Your task to perform on an android device: turn off wifi Image 0: 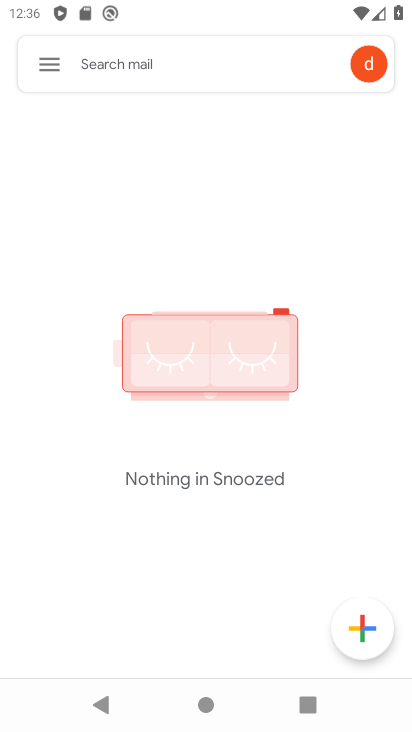
Step 0: press home button
Your task to perform on an android device: turn off wifi Image 1: 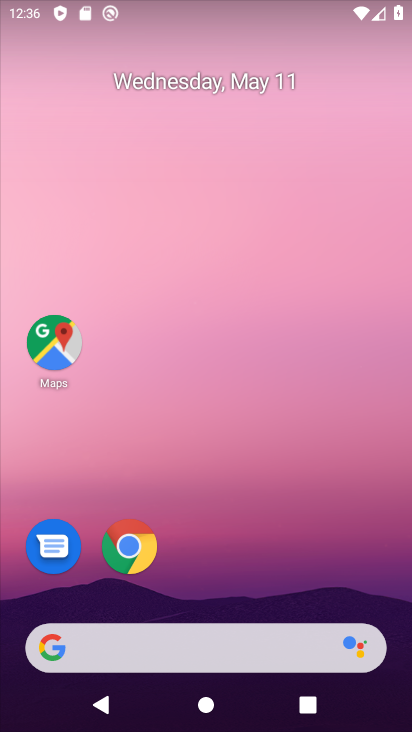
Step 1: drag from (274, 681) to (268, 330)
Your task to perform on an android device: turn off wifi Image 2: 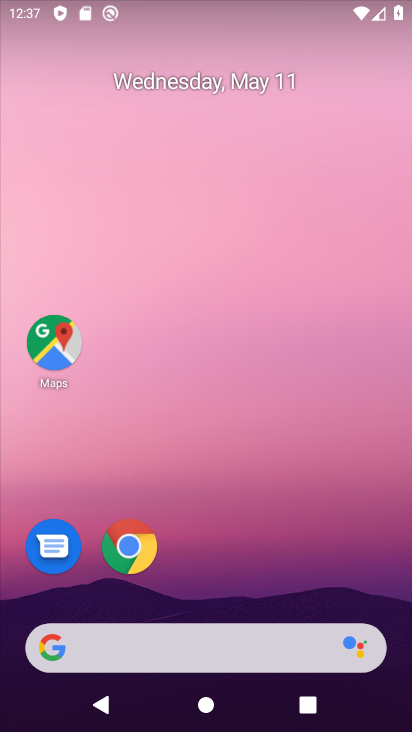
Step 2: drag from (278, 664) to (281, 247)
Your task to perform on an android device: turn off wifi Image 3: 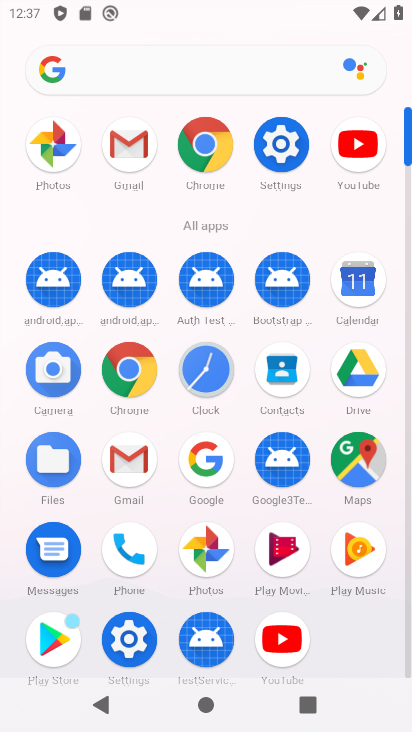
Step 3: click (266, 152)
Your task to perform on an android device: turn off wifi Image 4: 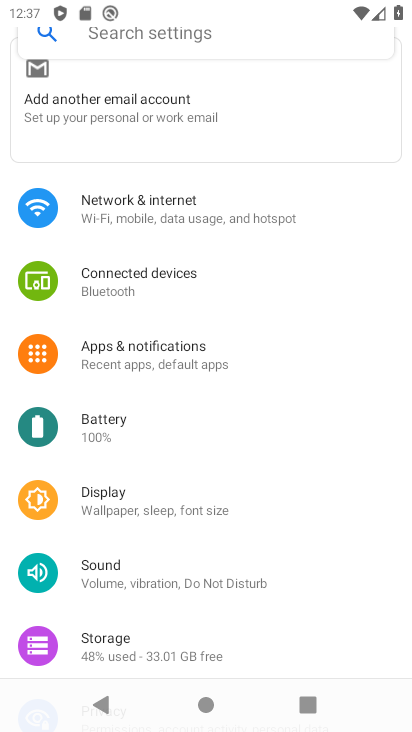
Step 4: click (148, 213)
Your task to perform on an android device: turn off wifi Image 5: 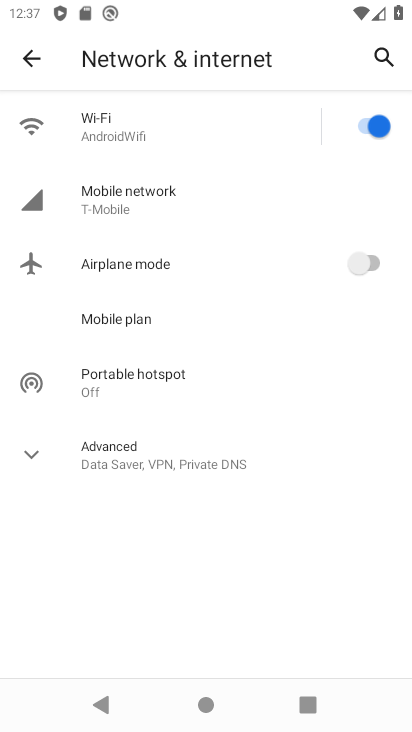
Step 5: click (208, 129)
Your task to perform on an android device: turn off wifi Image 6: 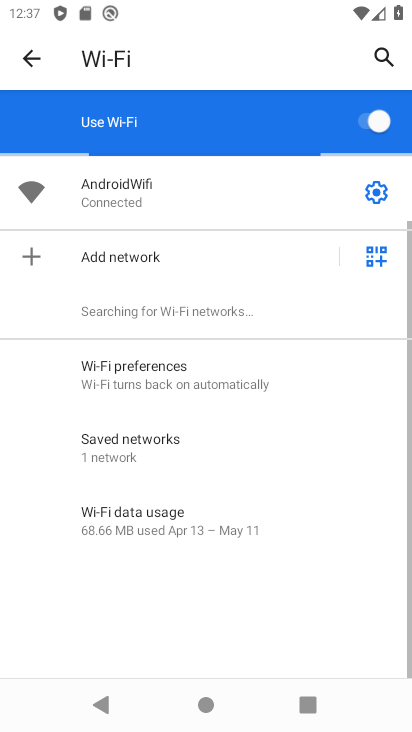
Step 6: click (374, 129)
Your task to perform on an android device: turn off wifi Image 7: 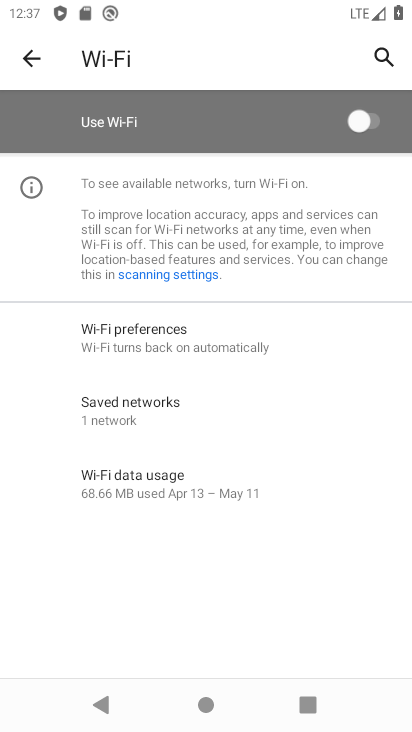
Step 7: task complete